Your task to perform on an android device: find photos in the google photos app Image 0: 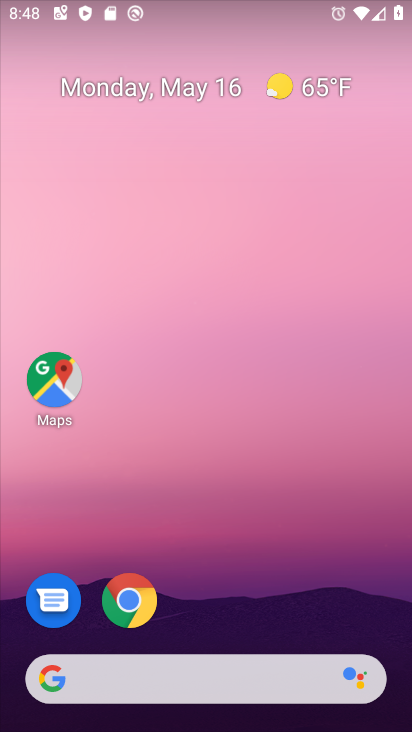
Step 0: drag from (204, 628) to (328, 84)
Your task to perform on an android device: find photos in the google photos app Image 1: 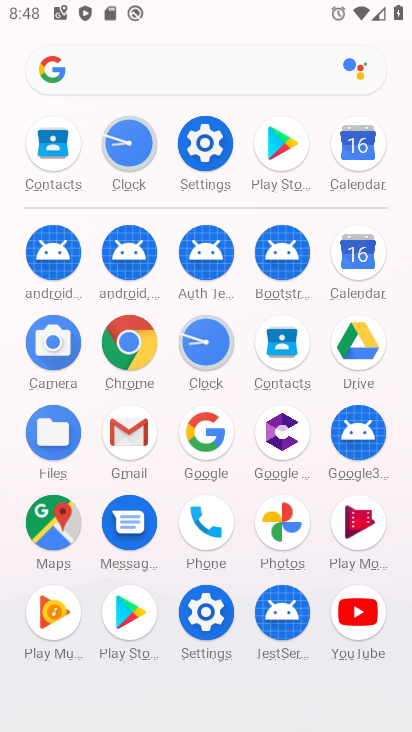
Step 1: click (286, 514)
Your task to perform on an android device: find photos in the google photos app Image 2: 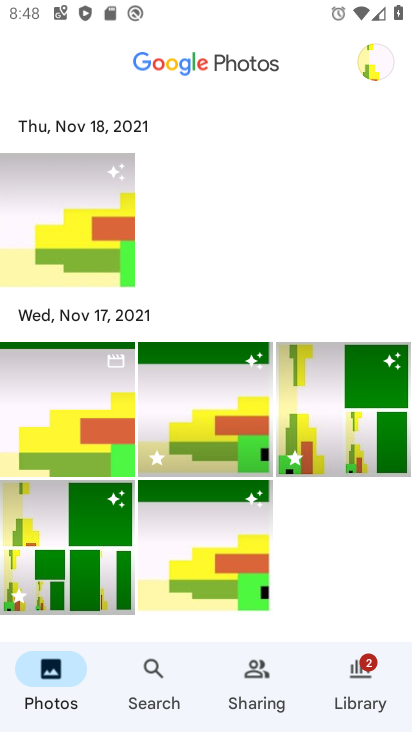
Step 2: click (71, 237)
Your task to perform on an android device: find photos in the google photos app Image 3: 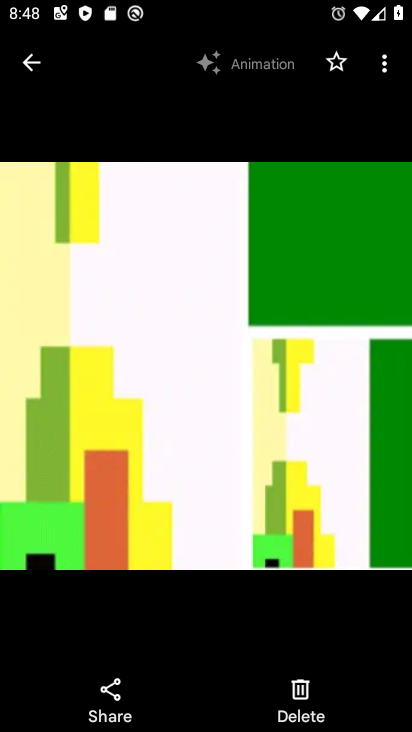
Step 3: task complete